Your task to perform on an android device: toggle wifi Image 0: 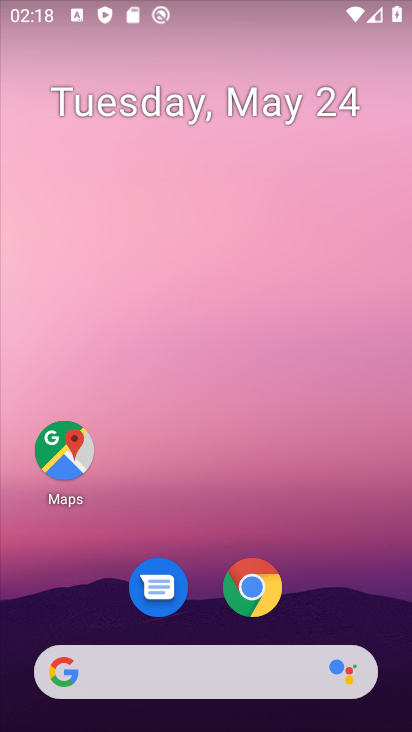
Step 0: drag from (146, 695) to (262, 96)
Your task to perform on an android device: toggle wifi Image 1: 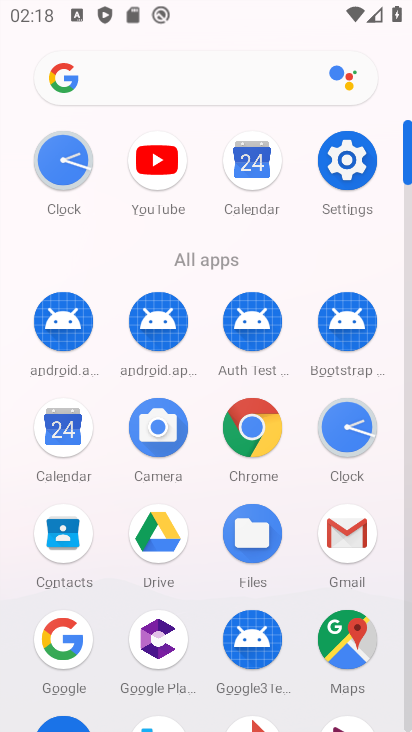
Step 1: click (338, 157)
Your task to perform on an android device: toggle wifi Image 2: 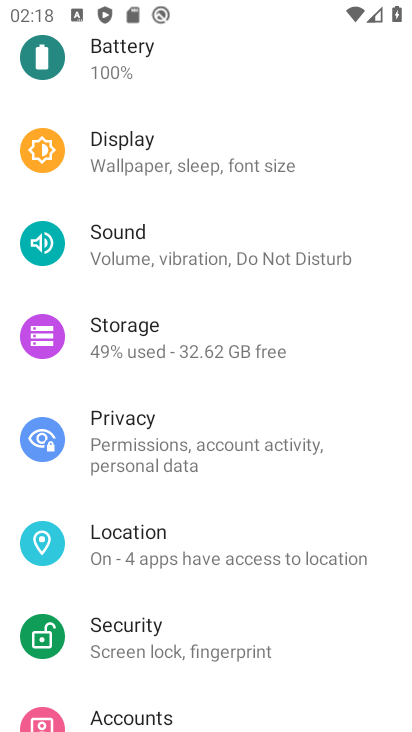
Step 2: drag from (271, 110) to (276, 584)
Your task to perform on an android device: toggle wifi Image 3: 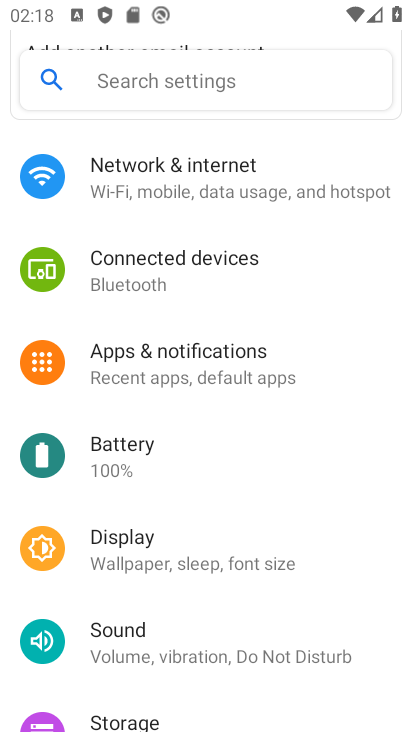
Step 3: click (254, 182)
Your task to perform on an android device: toggle wifi Image 4: 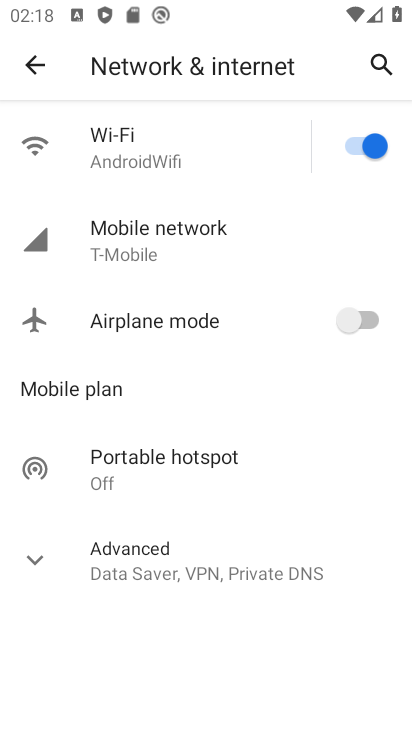
Step 4: click (369, 139)
Your task to perform on an android device: toggle wifi Image 5: 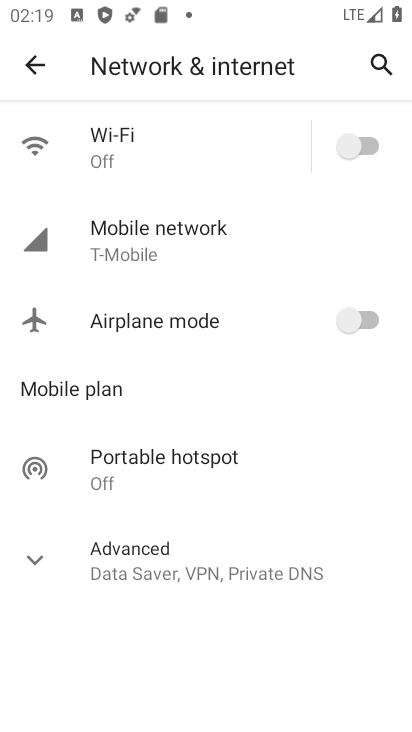
Step 5: task complete